Your task to perform on an android device: Open Wikipedia Image 0: 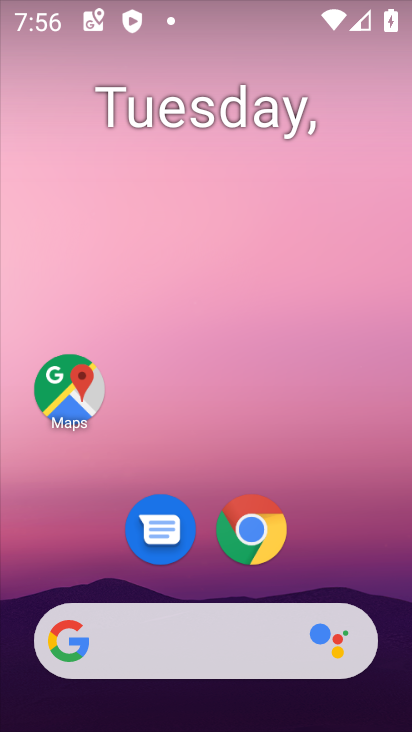
Step 0: drag from (237, 608) to (222, 204)
Your task to perform on an android device: Open Wikipedia Image 1: 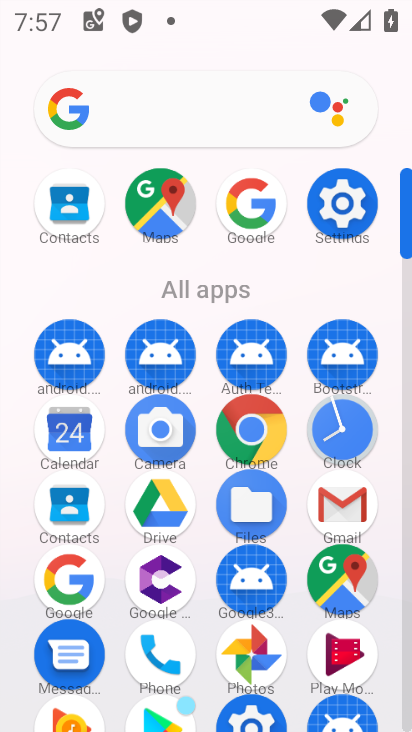
Step 1: drag from (253, 584) to (305, 259)
Your task to perform on an android device: Open Wikipedia Image 2: 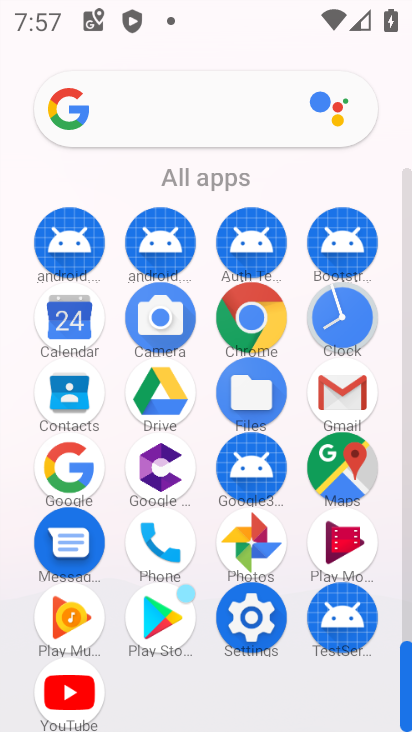
Step 2: click (264, 304)
Your task to perform on an android device: Open Wikipedia Image 3: 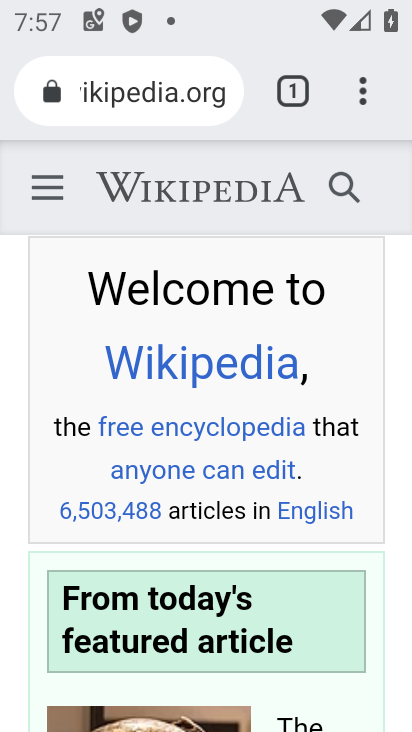
Step 3: task complete